Your task to perform on an android device: Open battery settings Image 0: 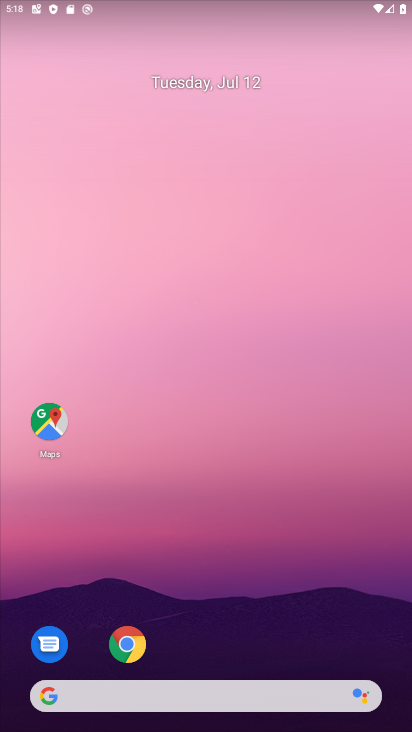
Step 0: drag from (281, 657) to (188, 13)
Your task to perform on an android device: Open battery settings Image 1: 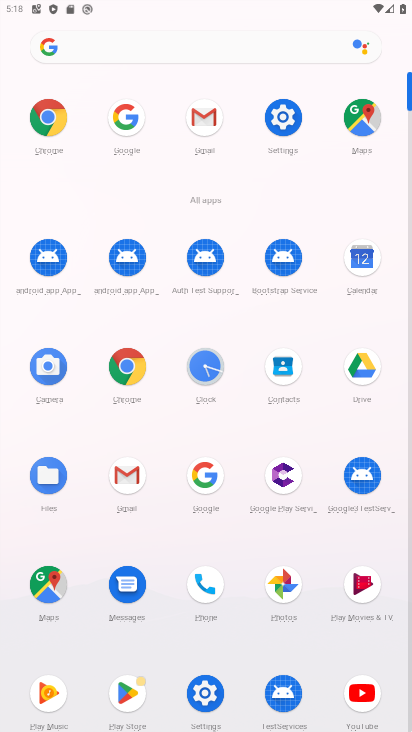
Step 1: click (286, 105)
Your task to perform on an android device: Open battery settings Image 2: 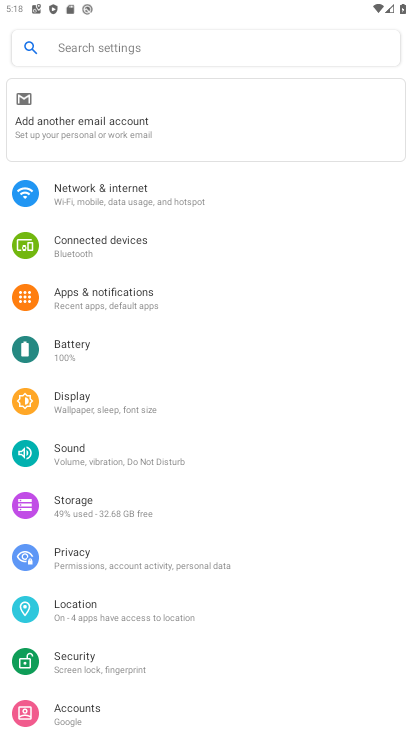
Step 2: click (43, 355)
Your task to perform on an android device: Open battery settings Image 3: 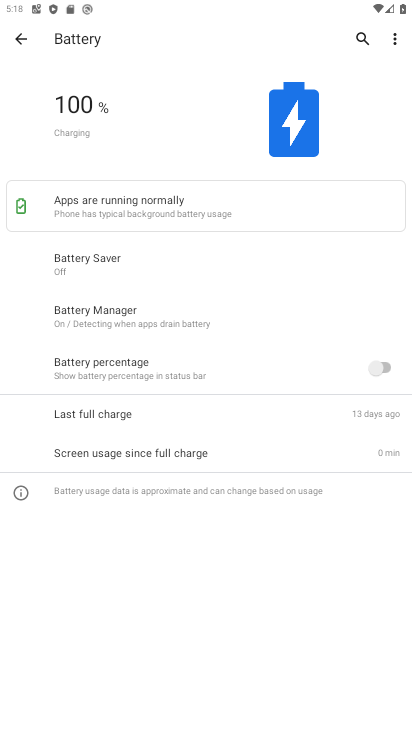
Step 3: task complete